Your task to perform on an android device: change text size in settings app Image 0: 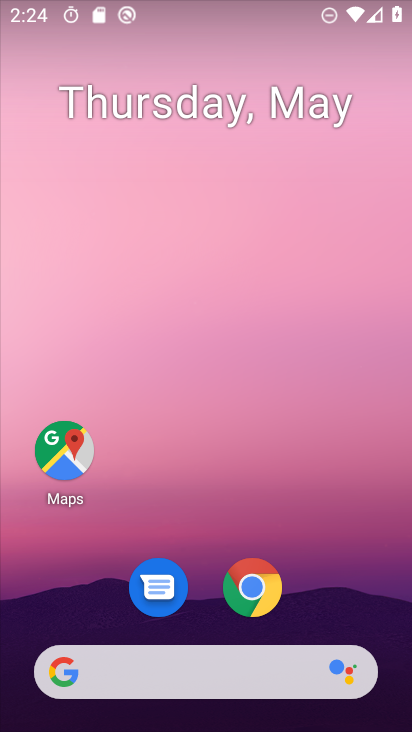
Step 0: drag from (348, 601) to (305, 227)
Your task to perform on an android device: change text size in settings app Image 1: 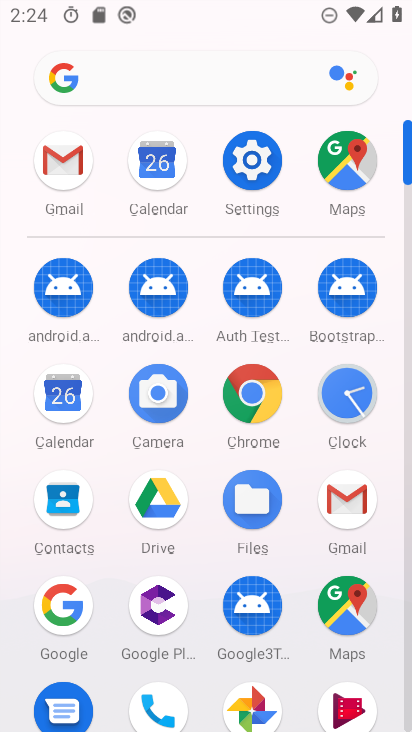
Step 1: click (245, 164)
Your task to perform on an android device: change text size in settings app Image 2: 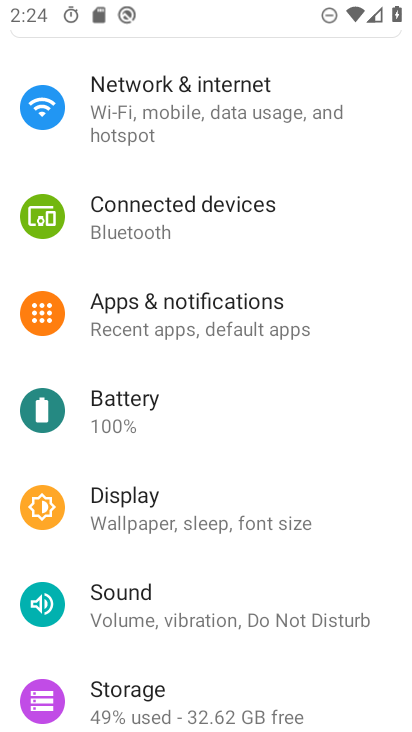
Step 2: drag from (237, 631) to (240, 533)
Your task to perform on an android device: change text size in settings app Image 3: 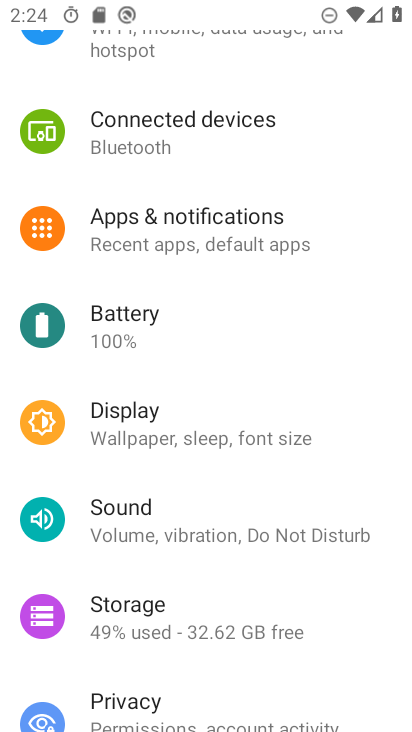
Step 3: click (215, 441)
Your task to perform on an android device: change text size in settings app Image 4: 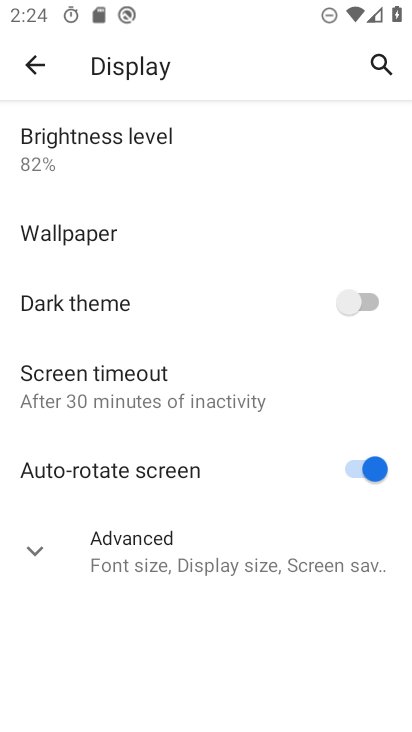
Step 4: click (127, 561)
Your task to perform on an android device: change text size in settings app Image 5: 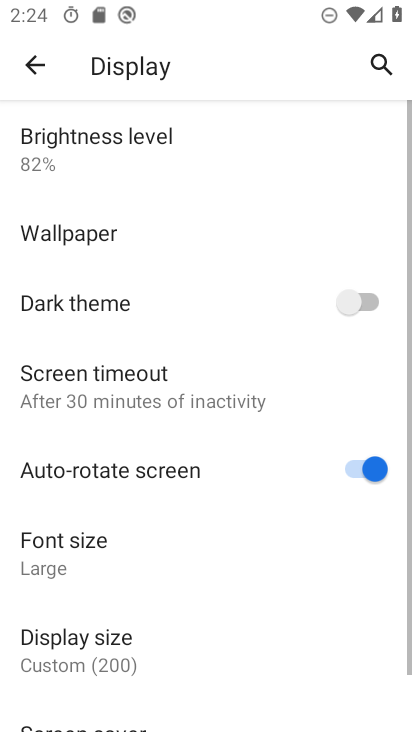
Step 5: click (87, 569)
Your task to perform on an android device: change text size in settings app Image 6: 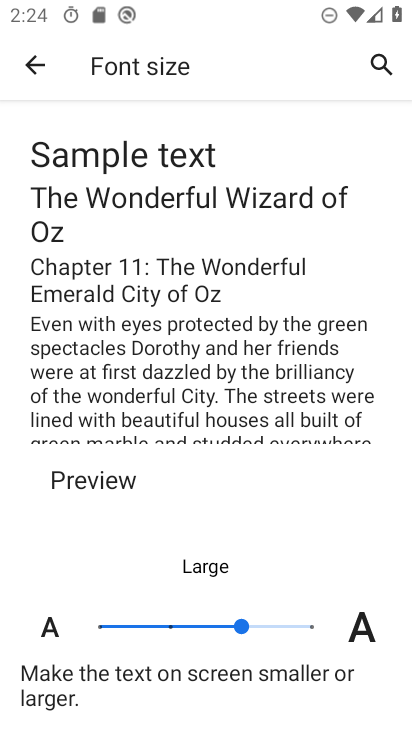
Step 6: click (109, 624)
Your task to perform on an android device: change text size in settings app Image 7: 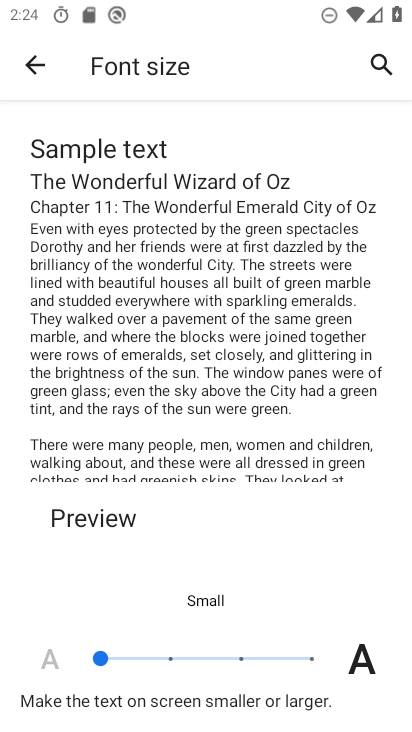
Step 7: task complete